Your task to perform on an android device: add a label to a message in the gmail app Image 0: 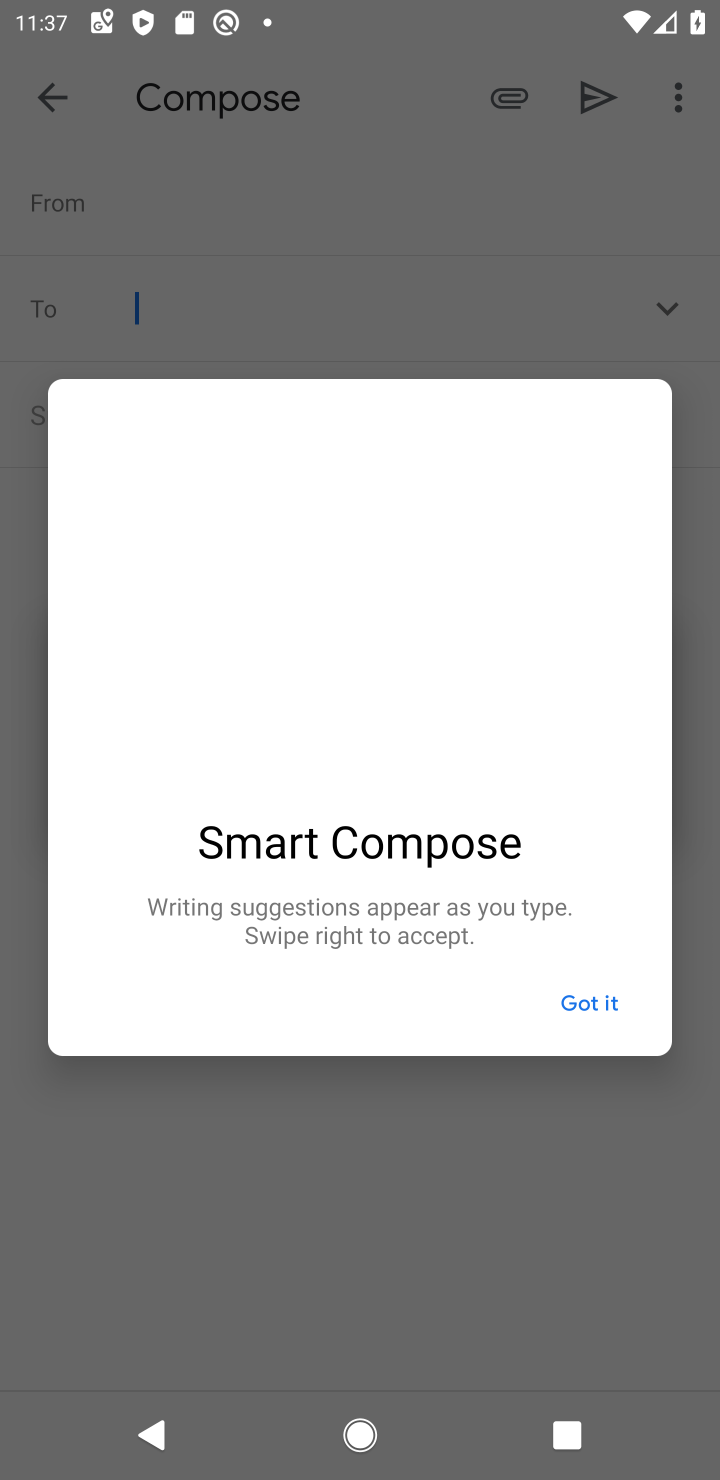
Step 0: press home button
Your task to perform on an android device: add a label to a message in the gmail app Image 1: 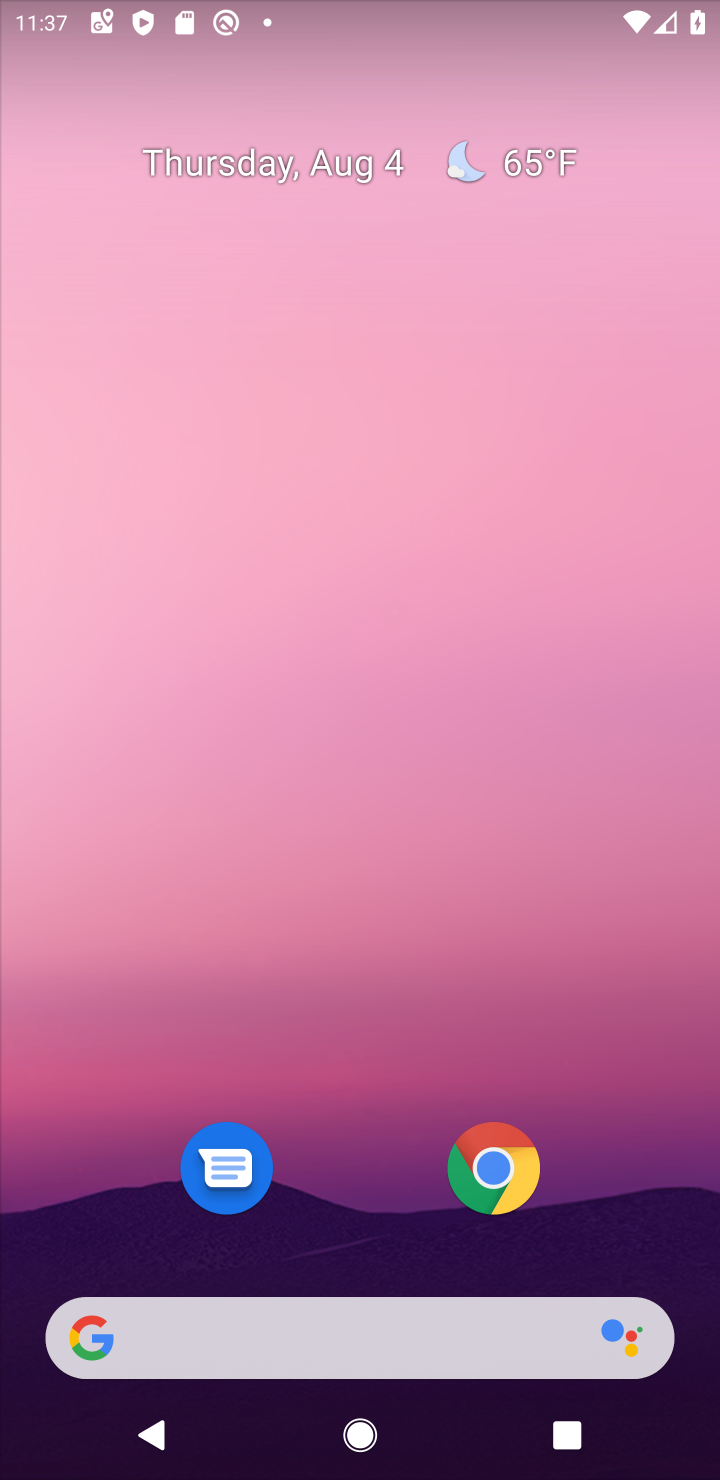
Step 1: drag from (658, 1213) to (508, 38)
Your task to perform on an android device: add a label to a message in the gmail app Image 2: 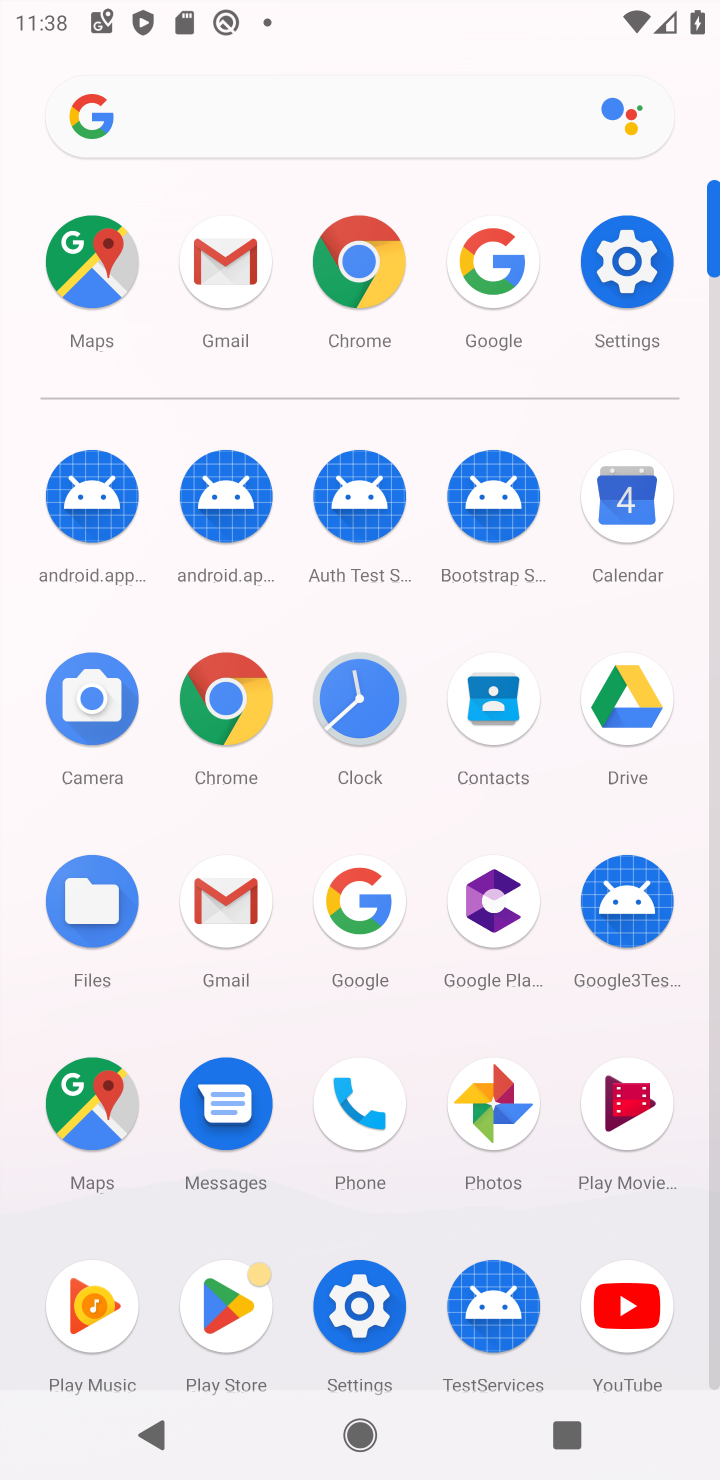
Step 2: click (252, 884)
Your task to perform on an android device: add a label to a message in the gmail app Image 3: 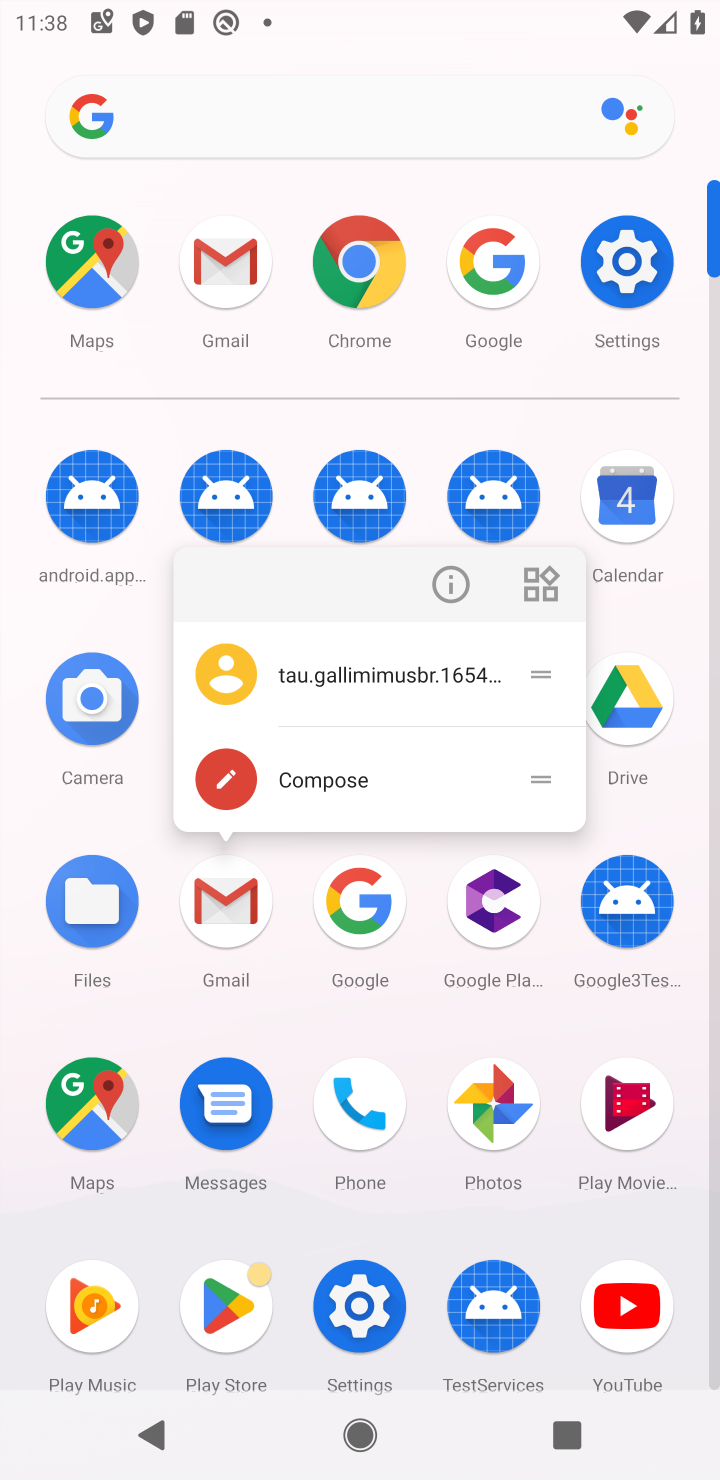
Step 3: click (249, 880)
Your task to perform on an android device: add a label to a message in the gmail app Image 4: 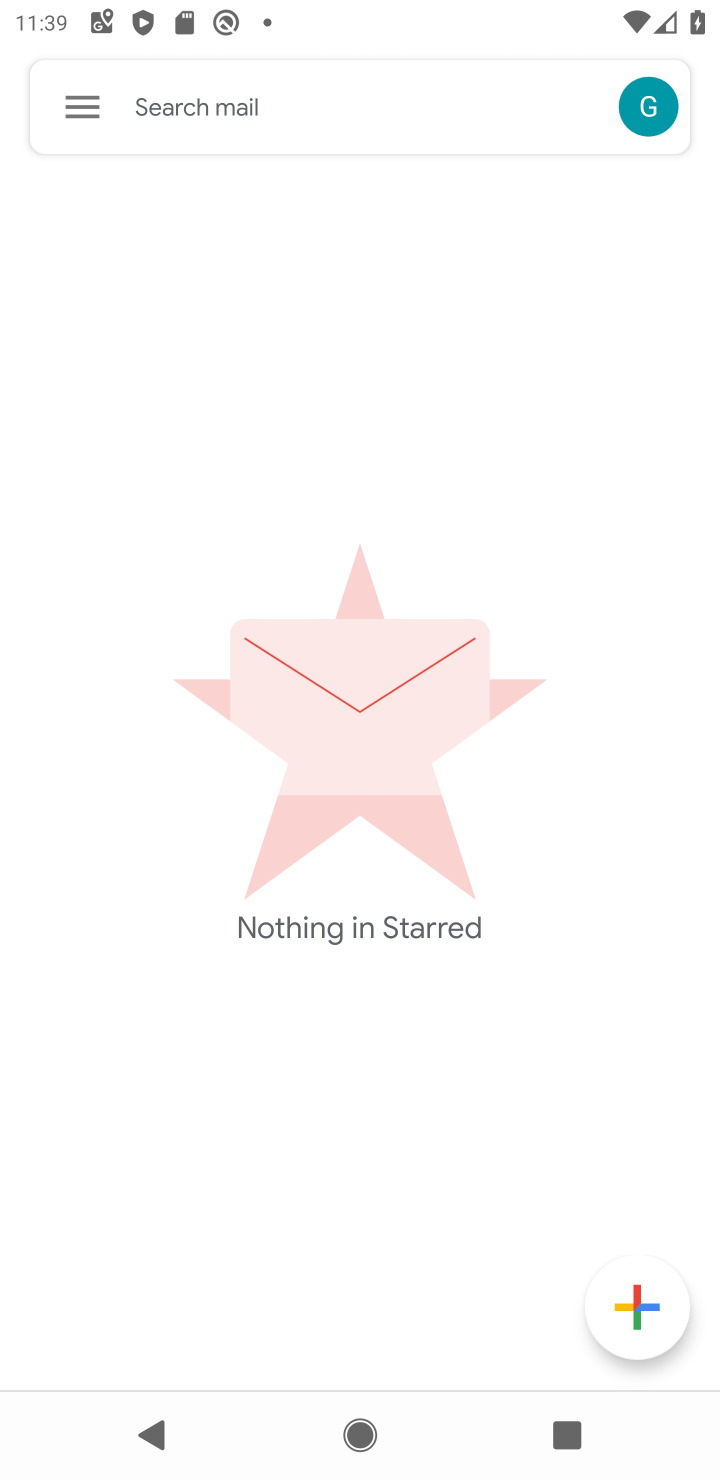
Step 4: task complete